Your task to perform on an android device: Go to accessibility settings Image 0: 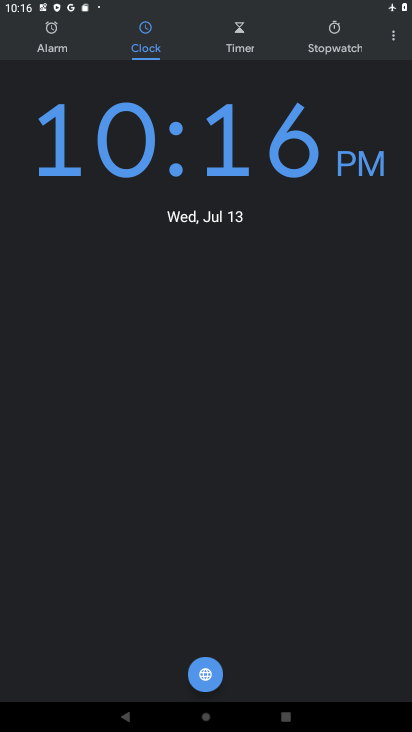
Step 0: press home button
Your task to perform on an android device: Go to accessibility settings Image 1: 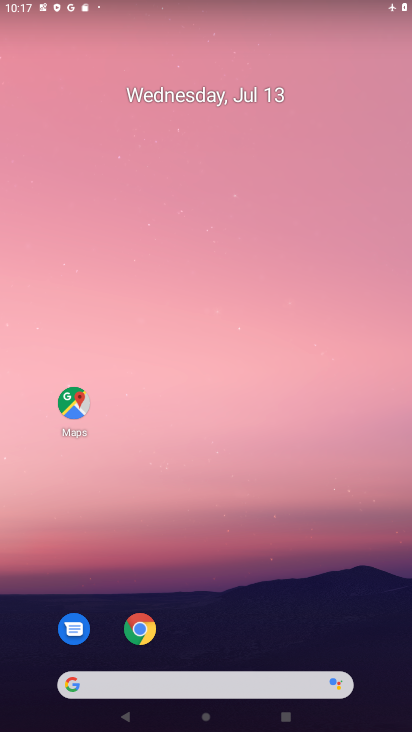
Step 1: drag from (274, 633) to (240, 178)
Your task to perform on an android device: Go to accessibility settings Image 2: 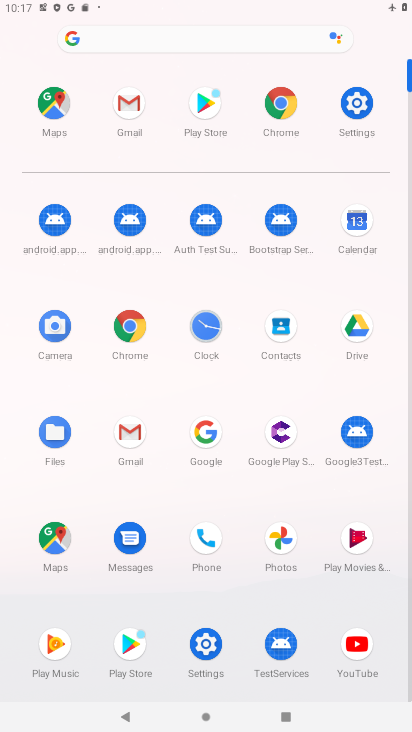
Step 2: click (364, 92)
Your task to perform on an android device: Go to accessibility settings Image 3: 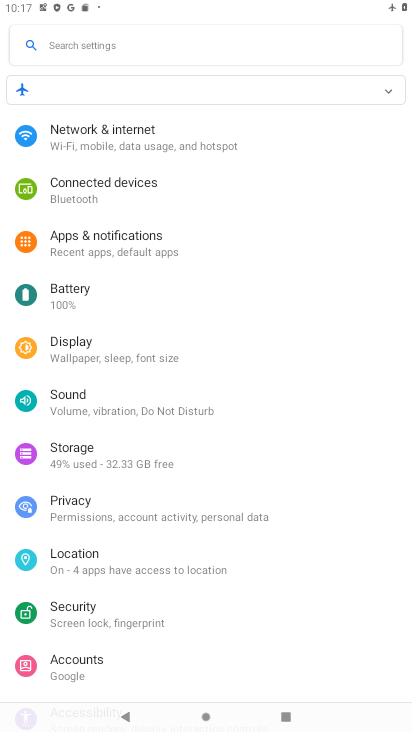
Step 3: drag from (229, 637) to (297, 299)
Your task to perform on an android device: Go to accessibility settings Image 4: 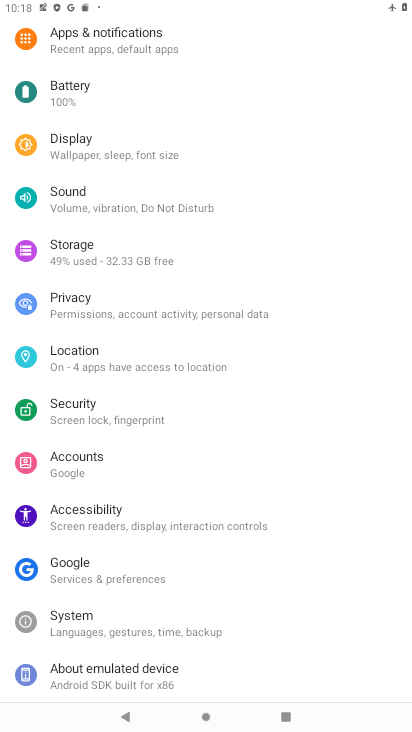
Step 4: click (296, 513)
Your task to perform on an android device: Go to accessibility settings Image 5: 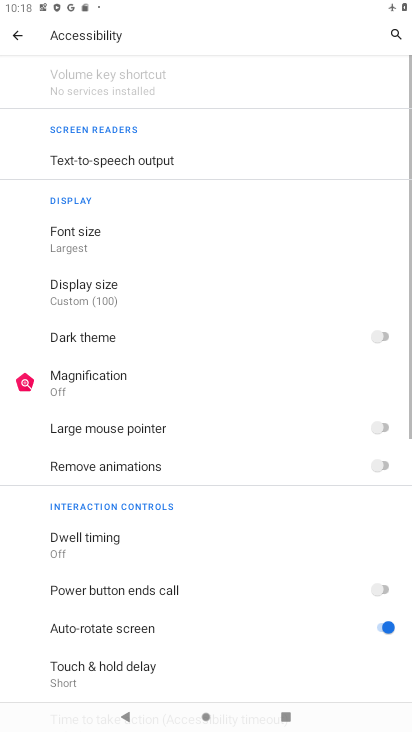
Step 5: task complete